Your task to perform on an android device: open a bookmark in the chrome app Image 0: 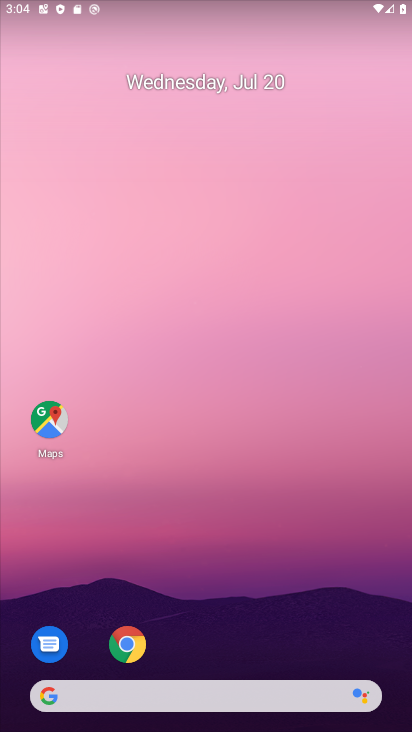
Step 0: click (119, 645)
Your task to perform on an android device: open a bookmark in the chrome app Image 1: 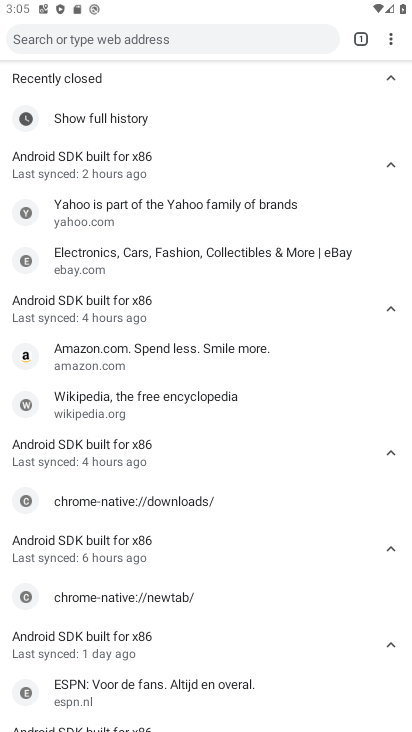
Step 1: click (385, 36)
Your task to perform on an android device: open a bookmark in the chrome app Image 2: 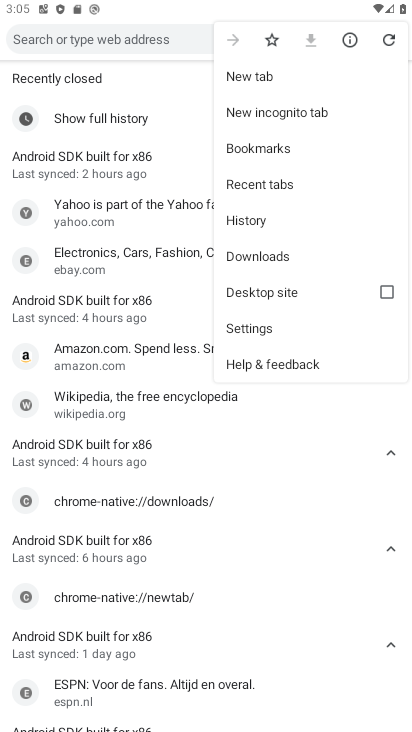
Step 2: click (269, 158)
Your task to perform on an android device: open a bookmark in the chrome app Image 3: 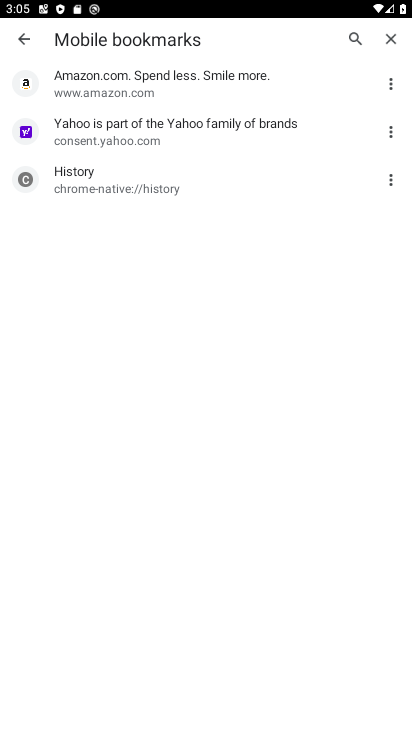
Step 3: task complete